Your task to perform on an android device: Go to privacy settings Image 0: 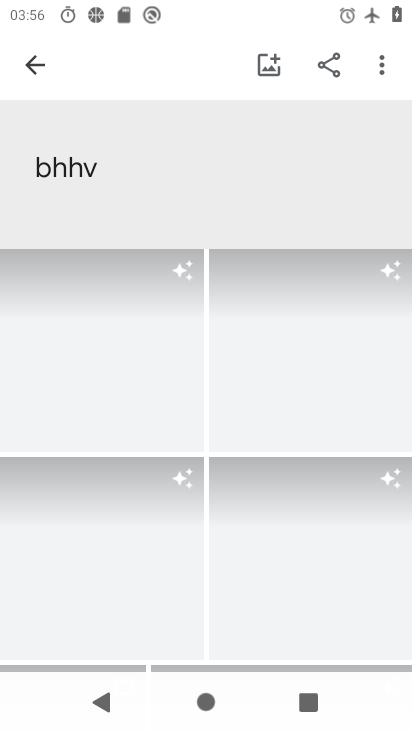
Step 0: press home button
Your task to perform on an android device: Go to privacy settings Image 1: 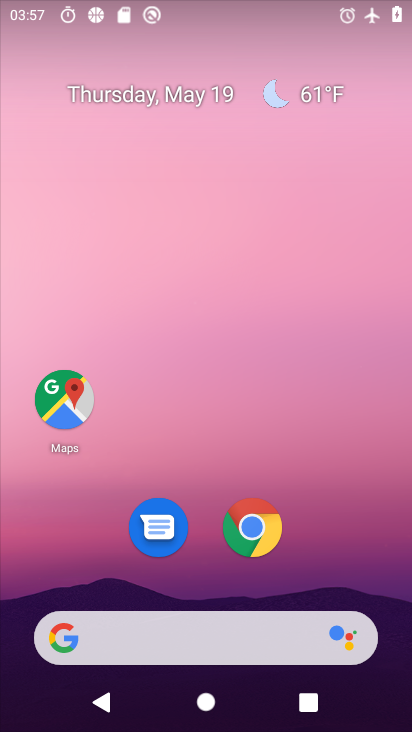
Step 1: drag from (200, 576) to (315, 46)
Your task to perform on an android device: Go to privacy settings Image 2: 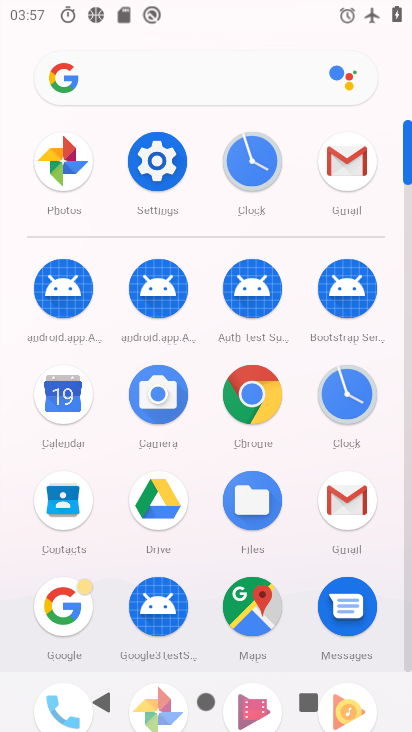
Step 2: click (146, 158)
Your task to perform on an android device: Go to privacy settings Image 3: 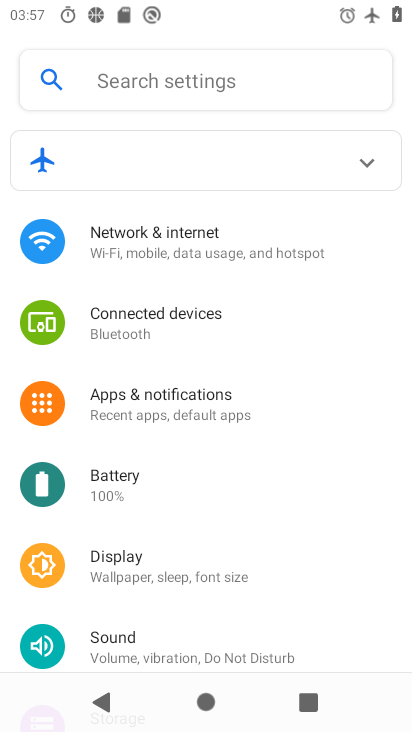
Step 3: drag from (142, 627) to (239, 218)
Your task to perform on an android device: Go to privacy settings Image 4: 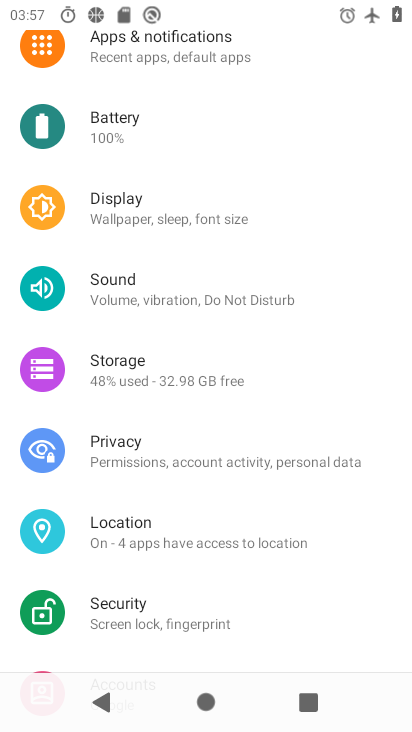
Step 4: click (137, 458)
Your task to perform on an android device: Go to privacy settings Image 5: 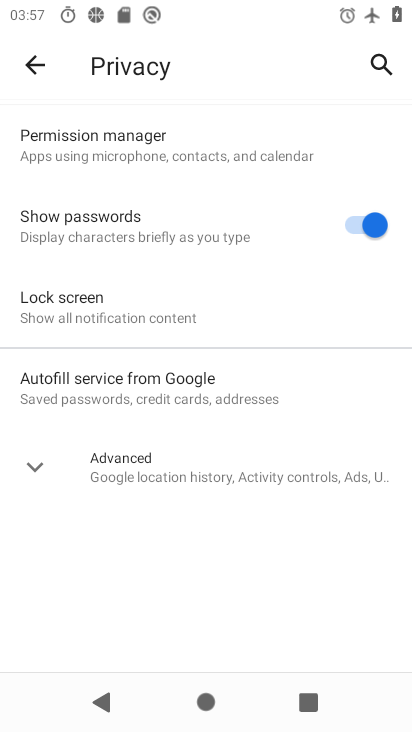
Step 5: task complete